Your task to perform on an android device: Go to wifi settings Image 0: 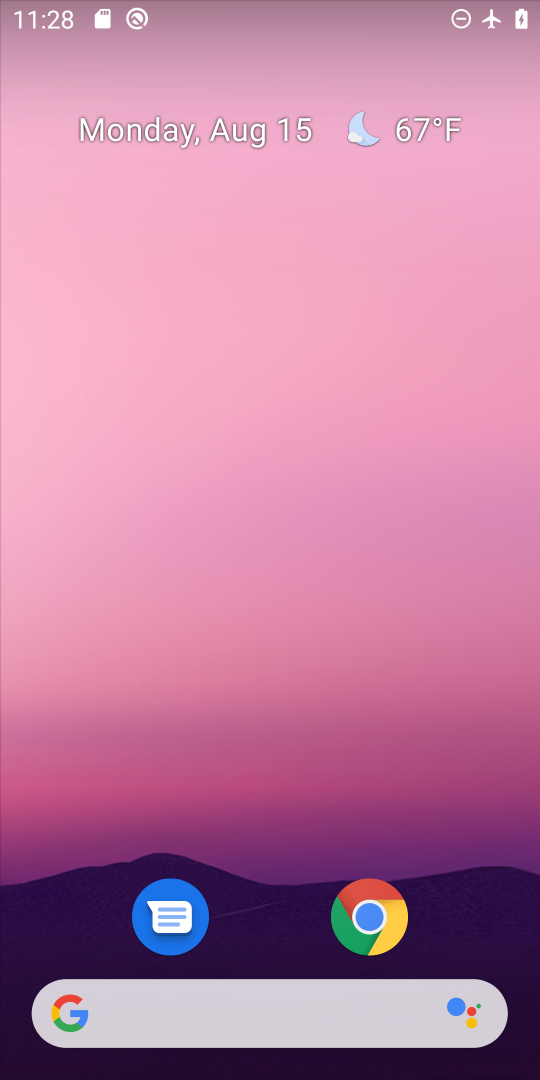
Step 0: drag from (277, 837) to (389, 0)
Your task to perform on an android device: Go to wifi settings Image 1: 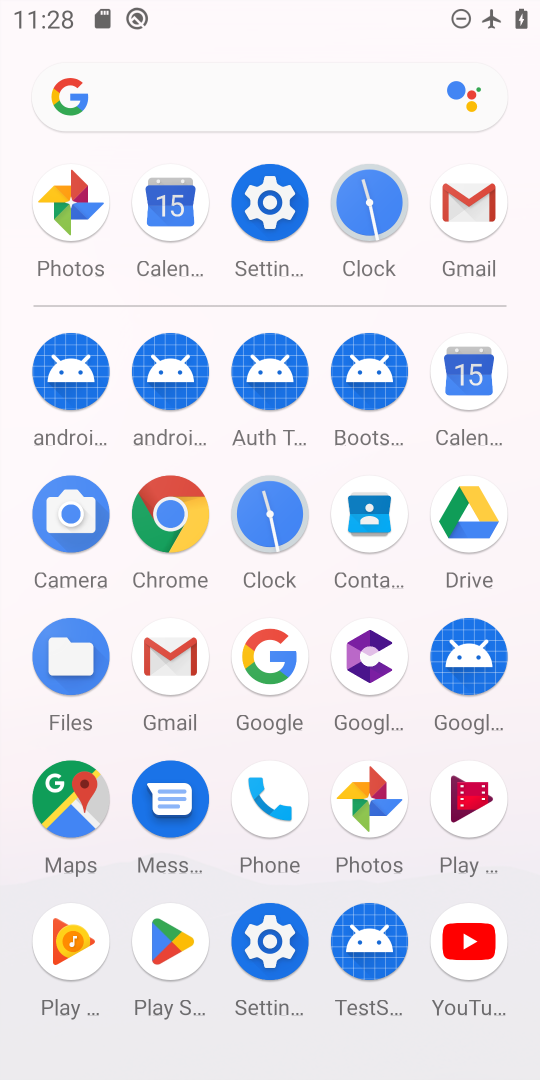
Step 1: click (274, 192)
Your task to perform on an android device: Go to wifi settings Image 2: 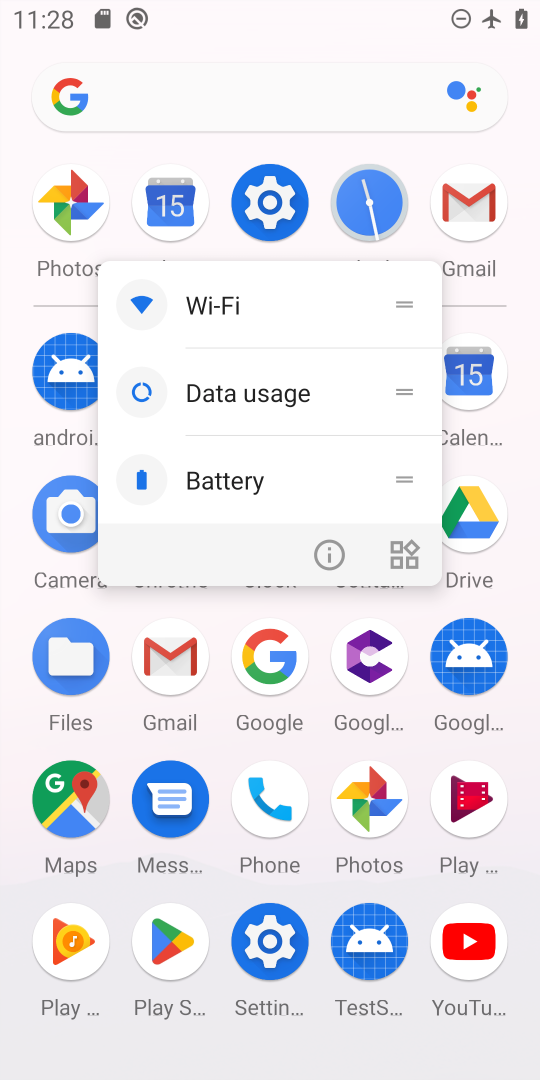
Step 2: click (274, 194)
Your task to perform on an android device: Go to wifi settings Image 3: 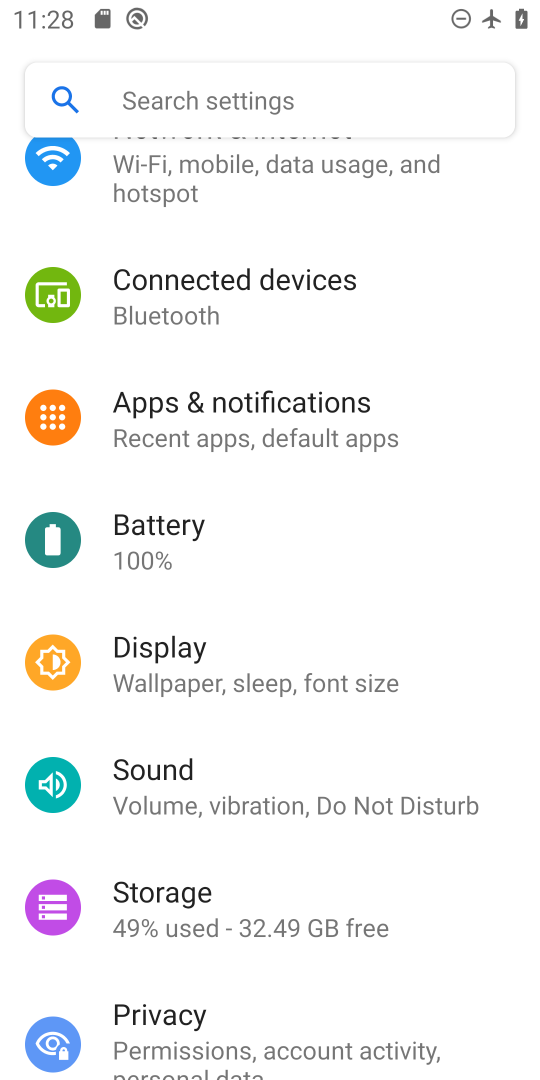
Step 3: drag from (274, 515) to (291, 889)
Your task to perform on an android device: Go to wifi settings Image 4: 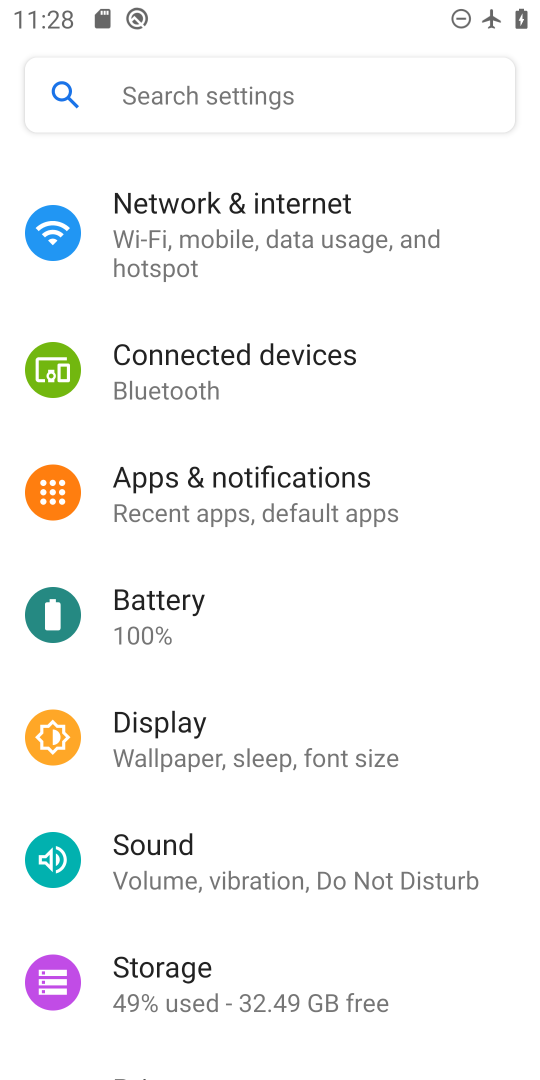
Step 4: click (363, 227)
Your task to perform on an android device: Go to wifi settings Image 5: 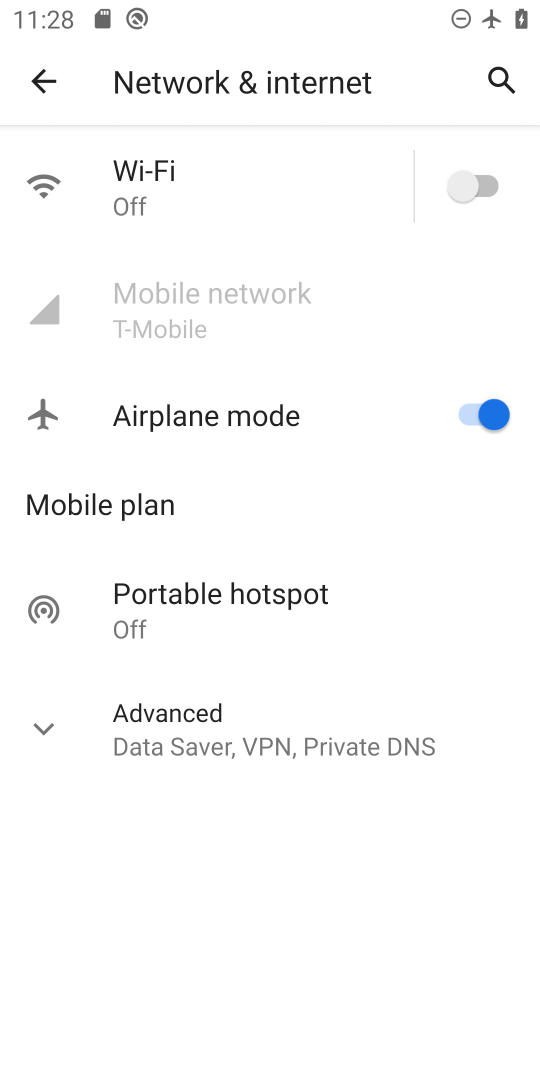
Step 5: click (209, 171)
Your task to perform on an android device: Go to wifi settings Image 6: 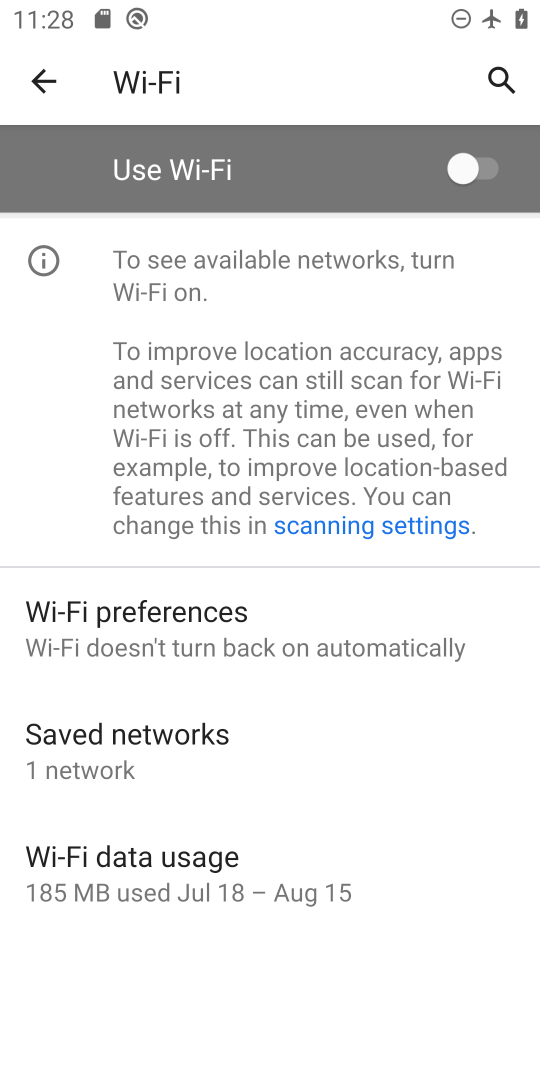
Step 6: task complete